Your task to perform on an android device: When is my next meeting? Image 0: 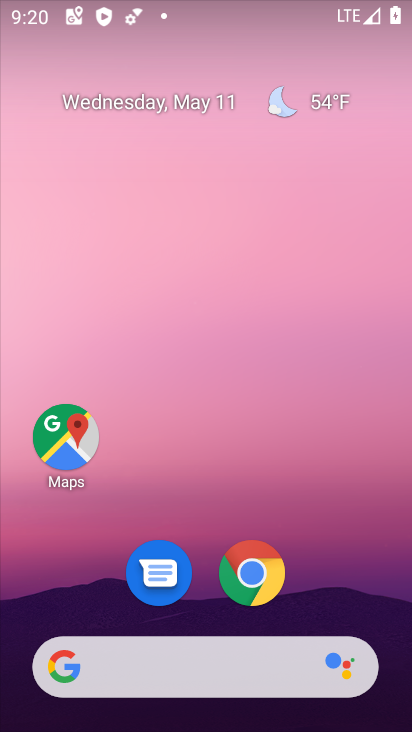
Step 0: drag from (212, 628) to (249, 135)
Your task to perform on an android device: When is my next meeting? Image 1: 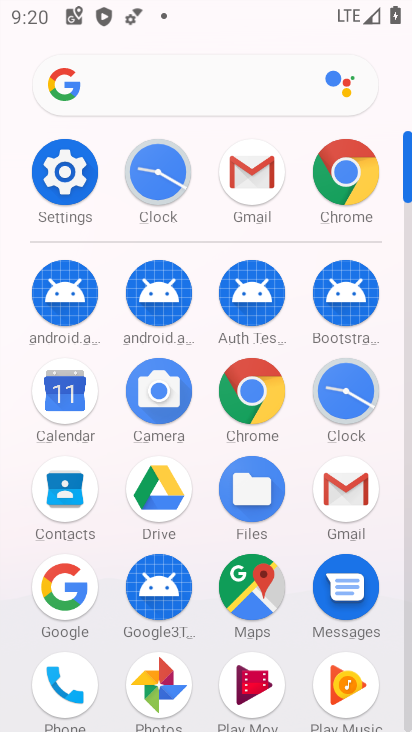
Step 1: click (67, 399)
Your task to perform on an android device: When is my next meeting? Image 2: 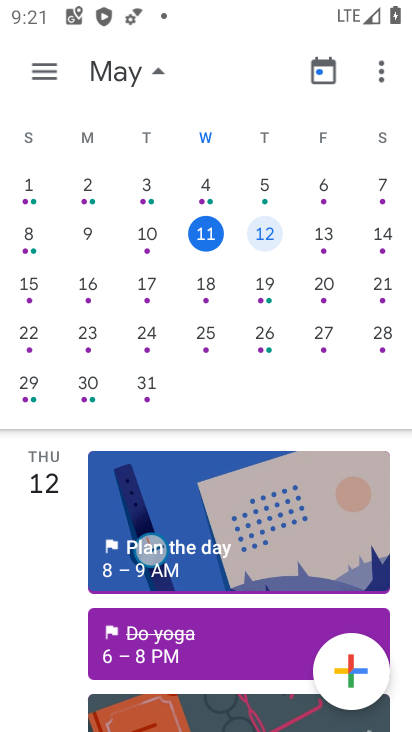
Step 2: click (255, 228)
Your task to perform on an android device: When is my next meeting? Image 3: 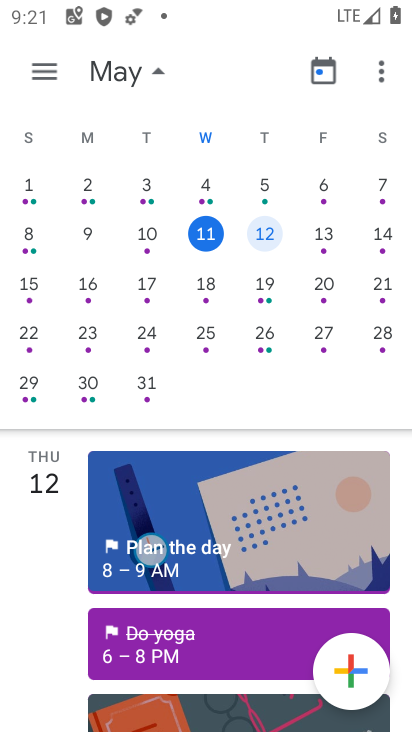
Step 3: task complete